Your task to perform on an android device: refresh tabs in the chrome app Image 0: 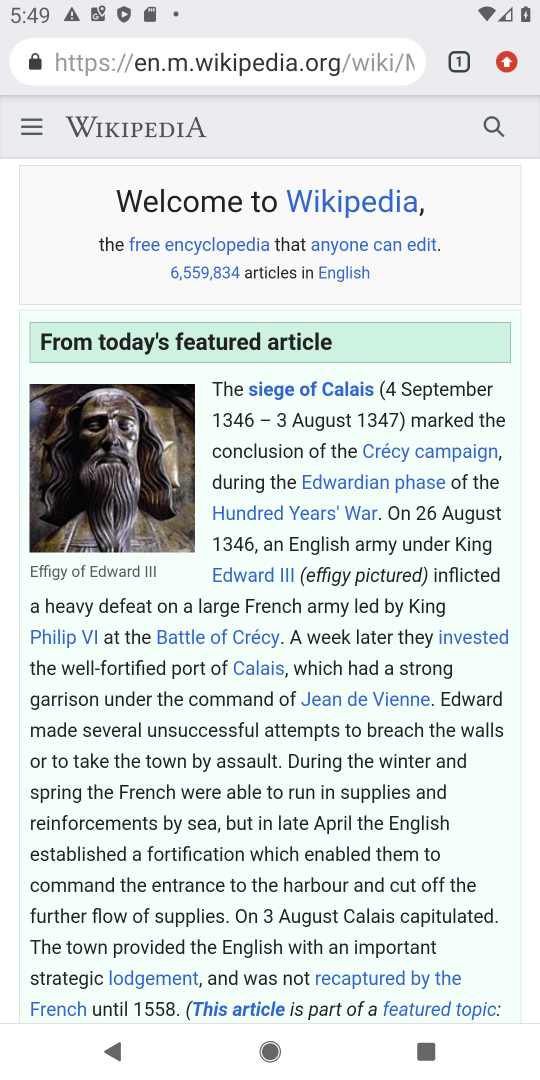
Step 0: press home button
Your task to perform on an android device: refresh tabs in the chrome app Image 1: 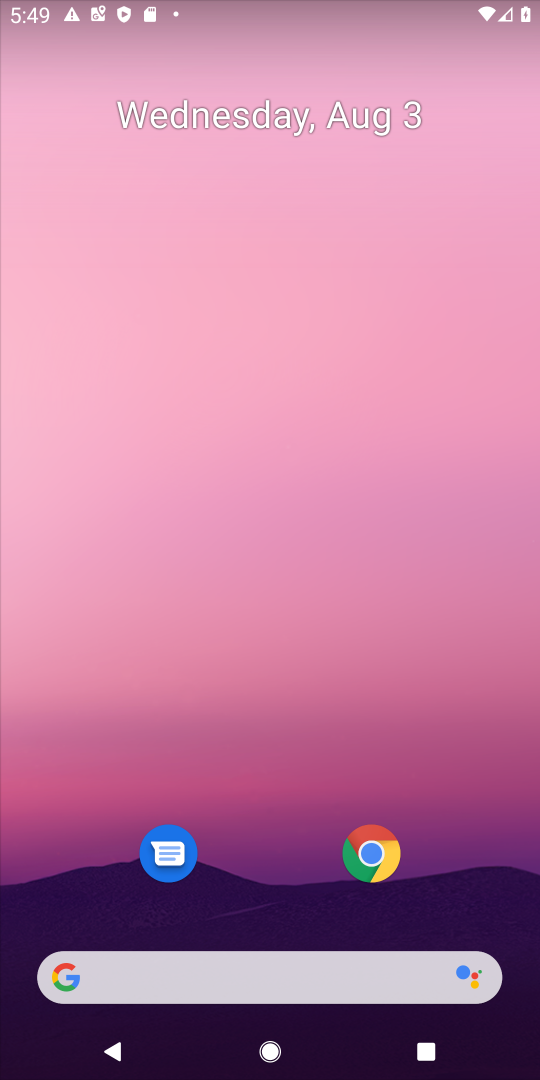
Step 1: click (369, 844)
Your task to perform on an android device: refresh tabs in the chrome app Image 2: 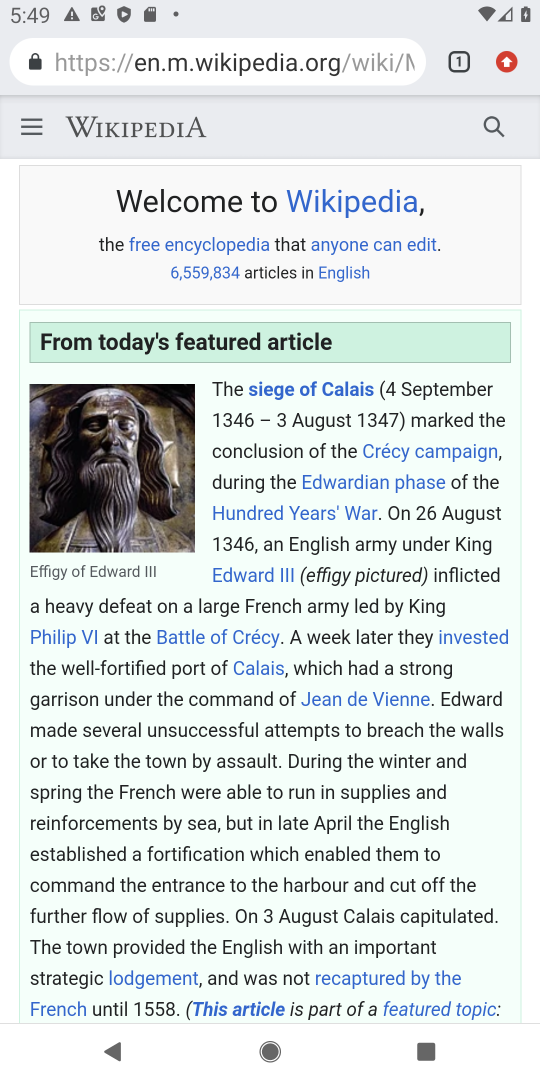
Step 2: click (509, 46)
Your task to perform on an android device: refresh tabs in the chrome app Image 3: 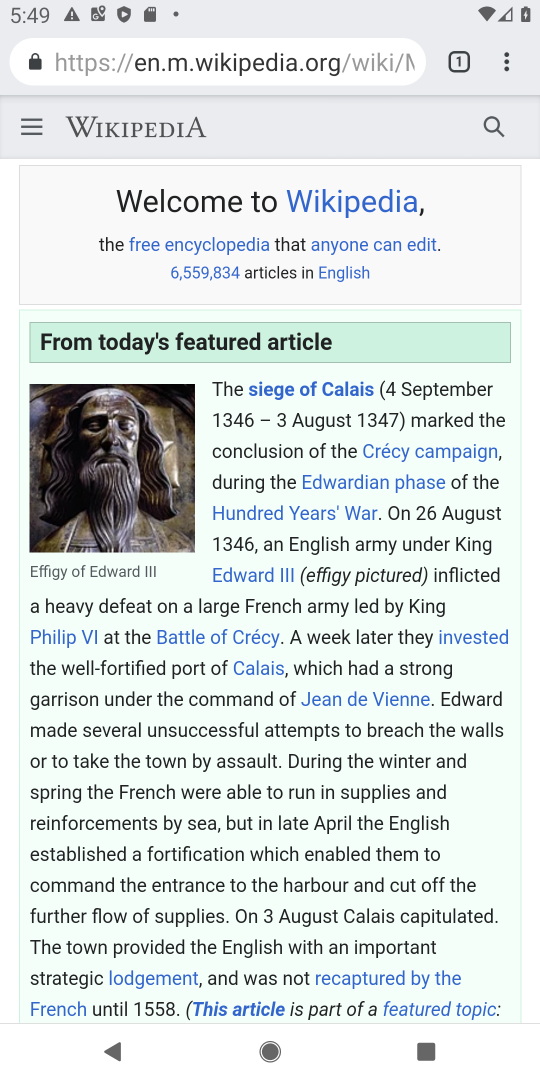
Step 3: task complete